Your task to perform on an android device: turn on location history Image 0: 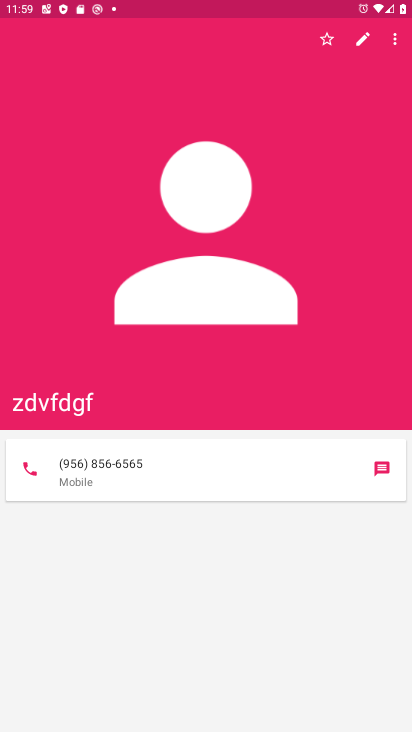
Step 0: press home button
Your task to perform on an android device: turn on location history Image 1: 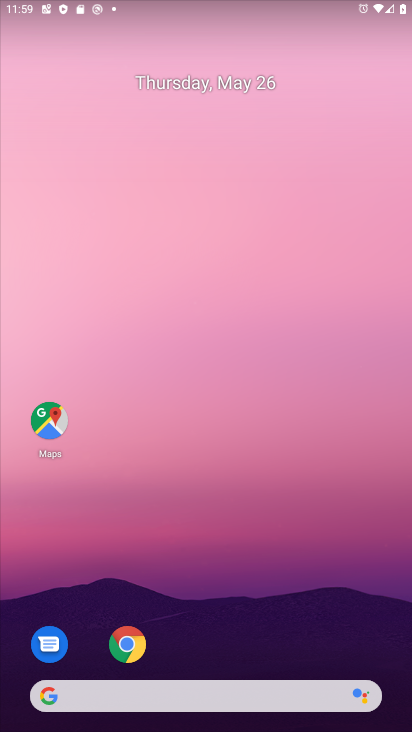
Step 1: drag from (206, 648) to (201, 228)
Your task to perform on an android device: turn on location history Image 2: 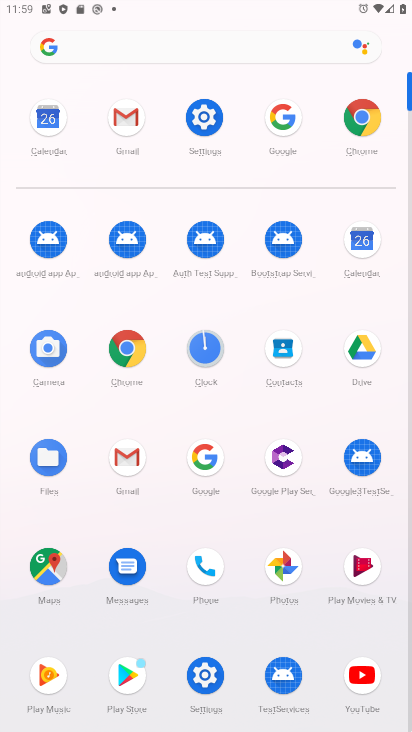
Step 2: click (218, 118)
Your task to perform on an android device: turn on location history Image 3: 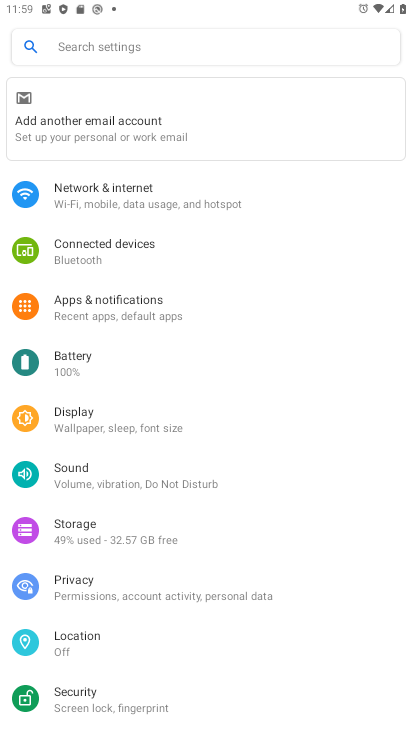
Step 3: click (109, 653)
Your task to perform on an android device: turn on location history Image 4: 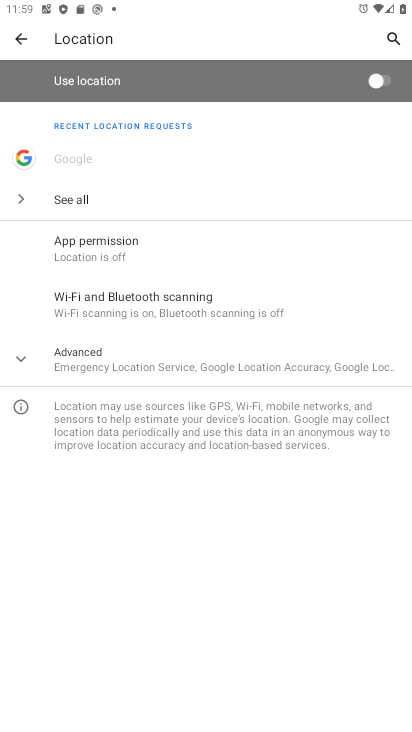
Step 4: click (133, 365)
Your task to perform on an android device: turn on location history Image 5: 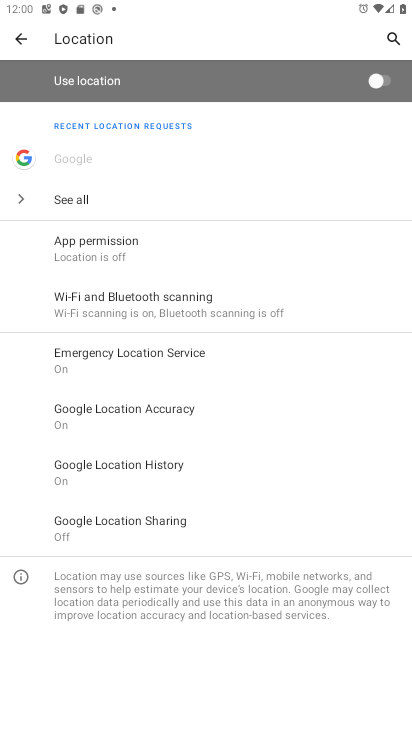
Step 5: click (173, 457)
Your task to perform on an android device: turn on location history Image 6: 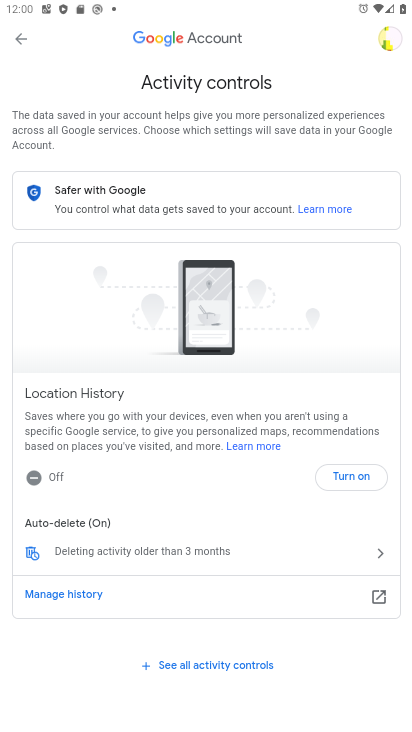
Step 6: click (334, 479)
Your task to perform on an android device: turn on location history Image 7: 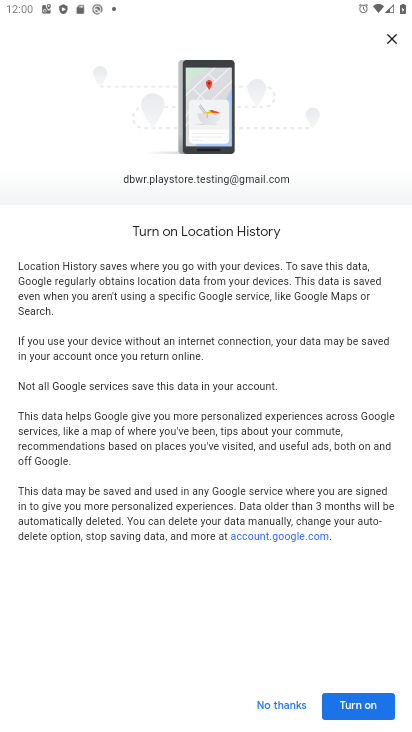
Step 7: click (347, 716)
Your task to perform on an android device: turn on location history Image 8: 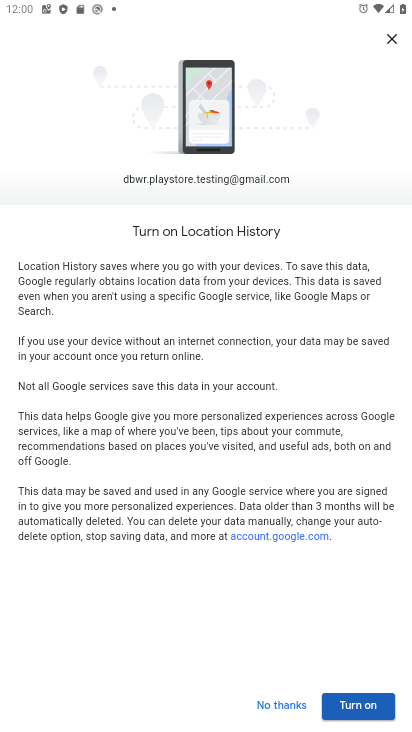
Step 8: click (354, 704)
Your task to perform on an android device: turn on location history Image 9: 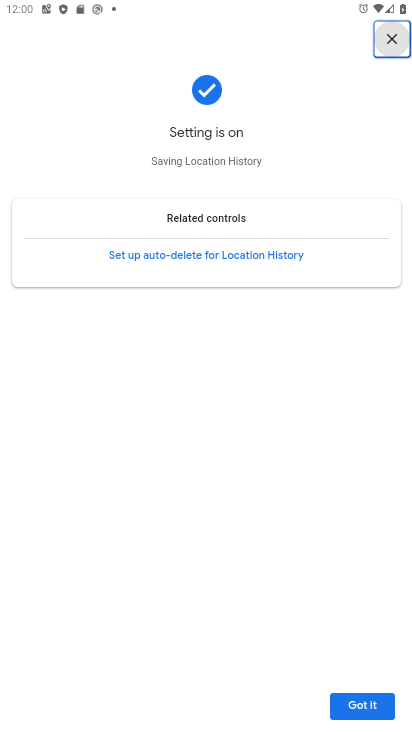
Step 9: task complete